Your task to perform on an android device: turn pop-ups on in chrome Image 0: 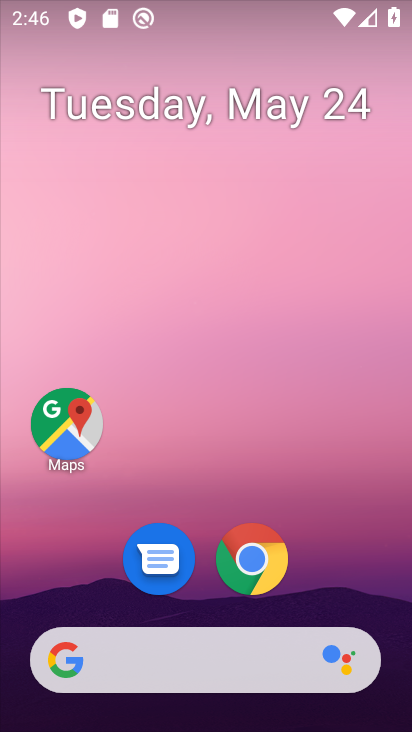
Step 0: click (241, 552)
Your task to perform on an android device: turn pop-ups on in chrome Image 1: 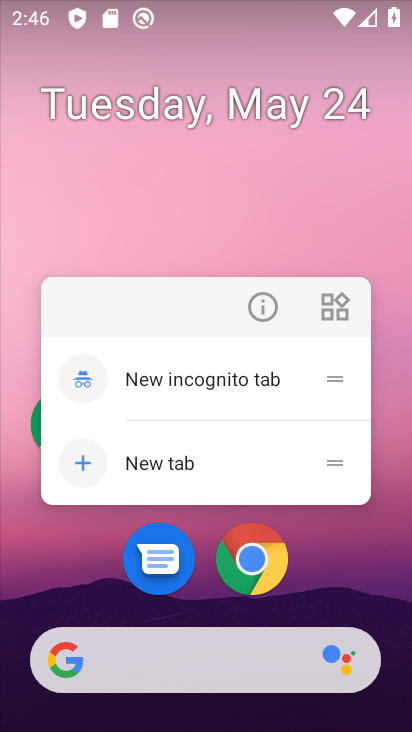
Step 1: click (224, 544)
Your task to perform on an android device: turn pop-ups on in chrome Image 2: 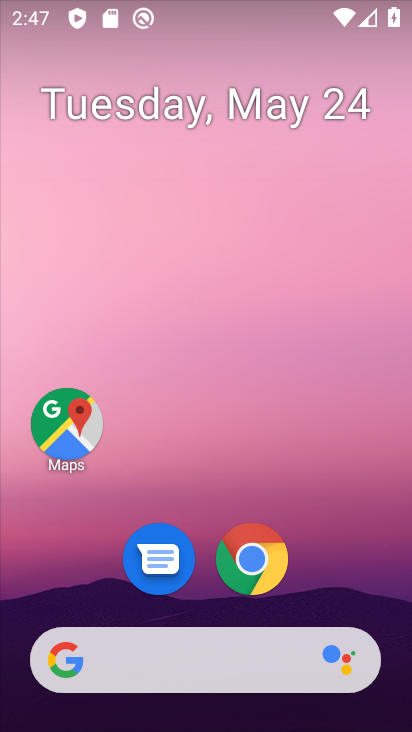
Step 2: click (243, 539)
Your task to perform on an android device: turn pop-ups on in chrome Image 3: 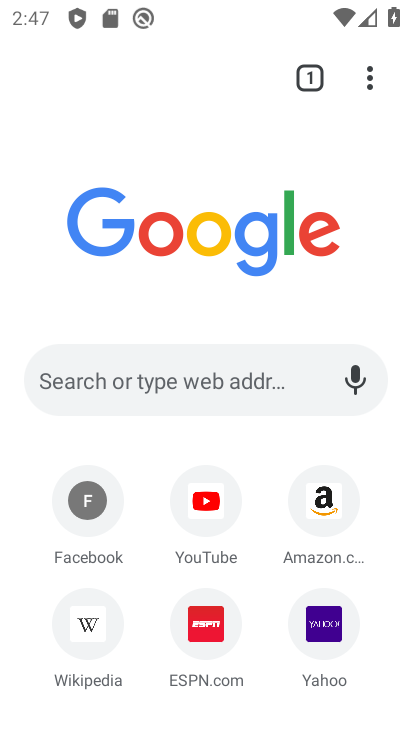
Step 3: drag from (372, 85) to (135, 641)
Your task to perform on an android device: turn pop-ups on in chrome Image 4: 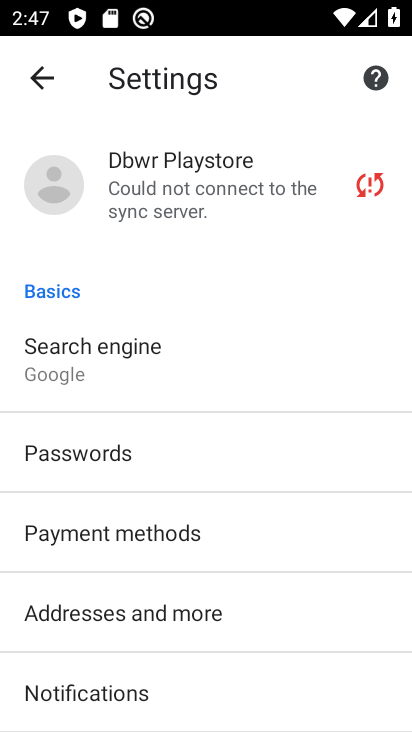
Step 4: drag from (138, 645) to (153, 171)
Your task to perform on an android device: turn pop-ups on in chrome Image 5: 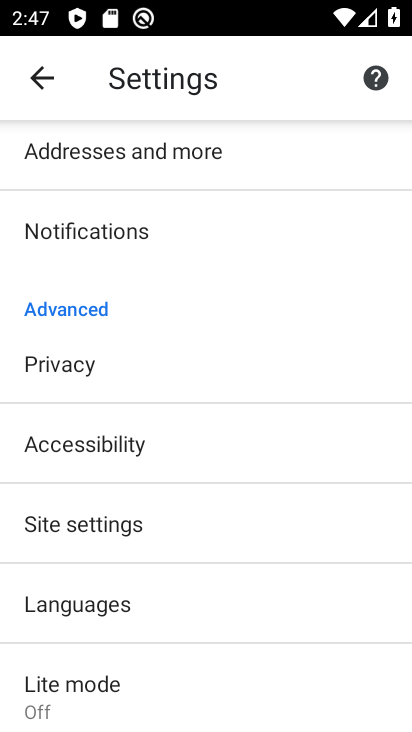
Step 5: click (81, 540)
Your task to perform on an android device: turn pop-ups on in chrome Image 6: 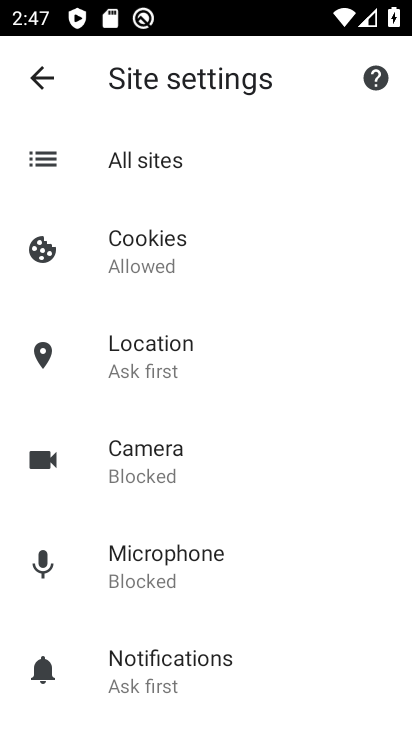
Step 6: drag from (219, 572) to (230, 107)
Your task to perform on an android device: turn pop-ups on in chrome Image 7: 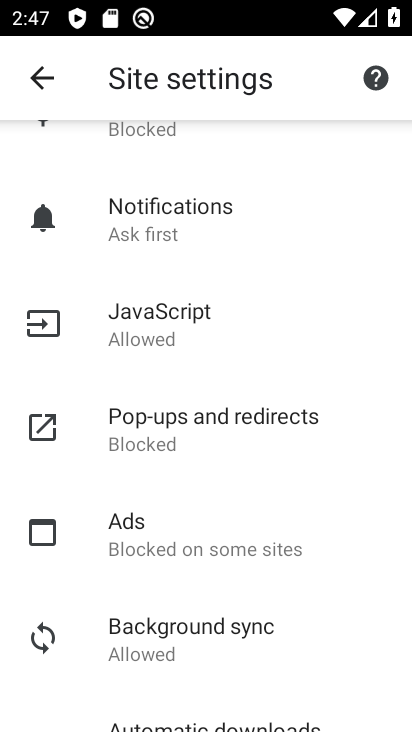
Step 7: drag from (172, 646) to (147, 206)
Your task to perform on an android device: turn pop-ups on in chrome Image 8: 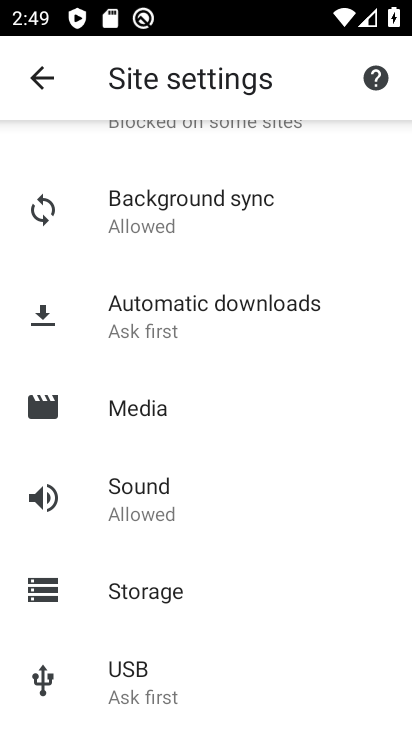
Step 8: drag from (183, 259) to (197, 615)
Your task to perform on an android device: turn pop-ups on in chrome Image 9: 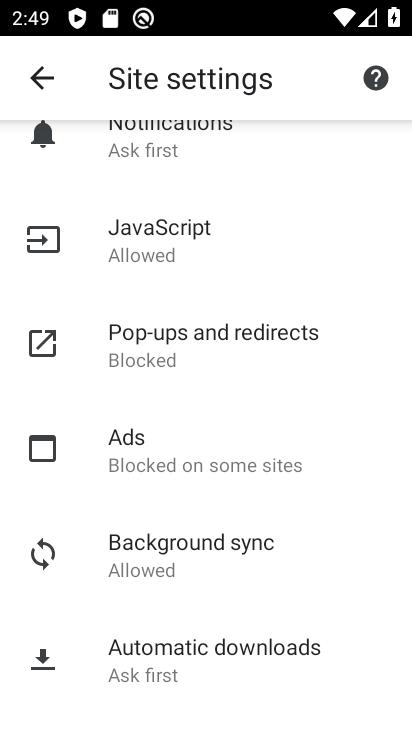
Step 9: click (165, 346)
Your task to perform on an android device: turn pop-ups on in chrome Image 10: 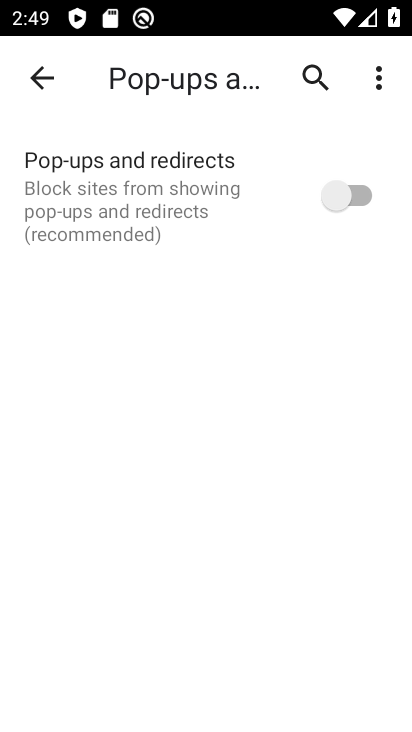
Step 10: click (348, 196)
Your task to perform on an android device: turn pop-ups on in chrome Image 11: 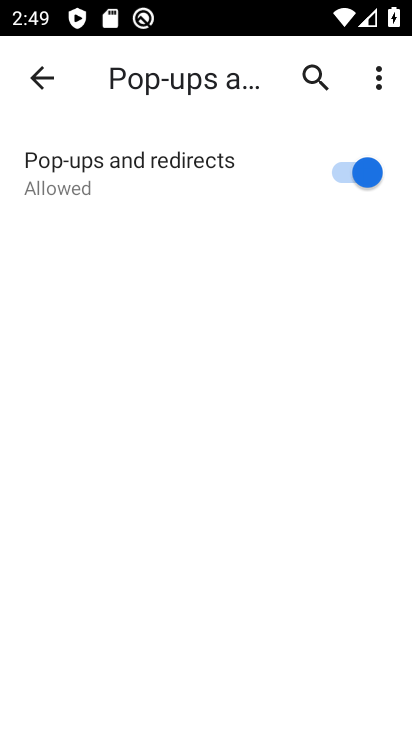
Step 11: task complete